Your task to perform on an android device: add a label to a message in the gmail app Image 0: 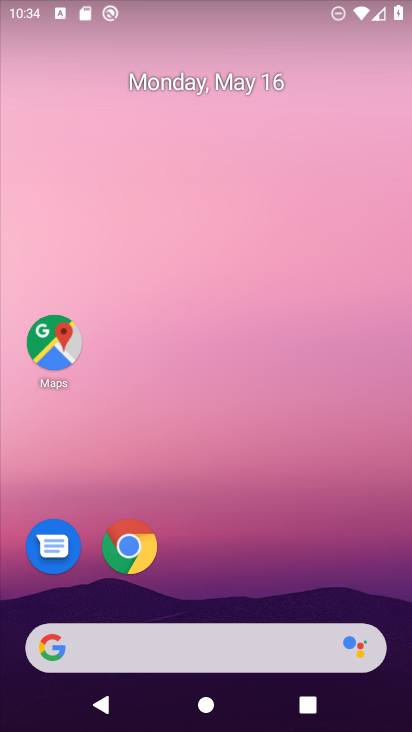
Step 0: drag from (185, 613) to (223, 85)
Your task to perform on an android device: add a label to a message in the gmail app Image 1: 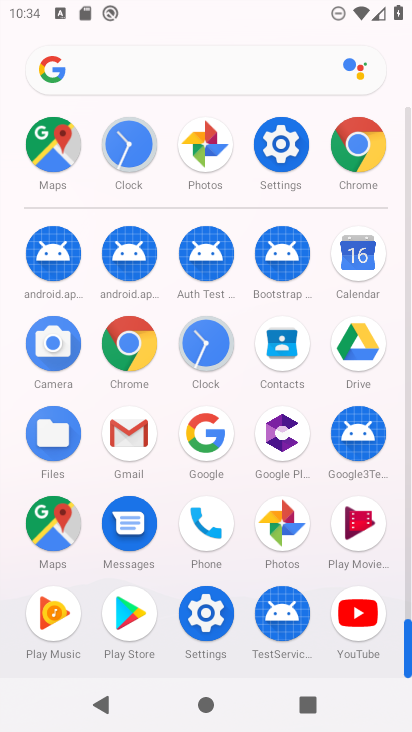
Step 1: click (130, 435)
Your task to perform on an android device: add a label to a message in the gmail app Image 2: 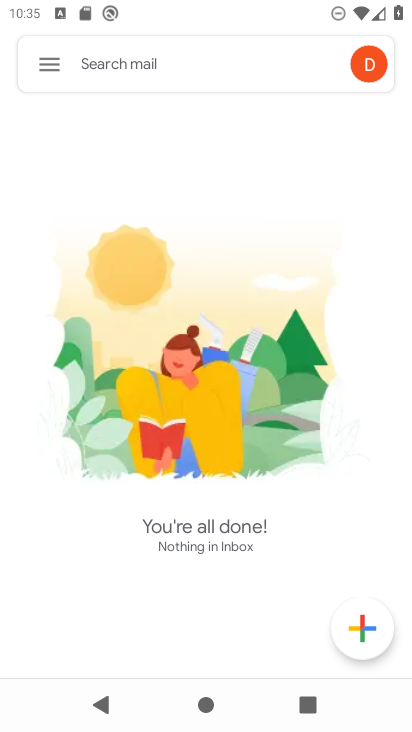
Step 2: task complete